Your task to perform on an android device: Is it going to rain tomorrow? Image 0: 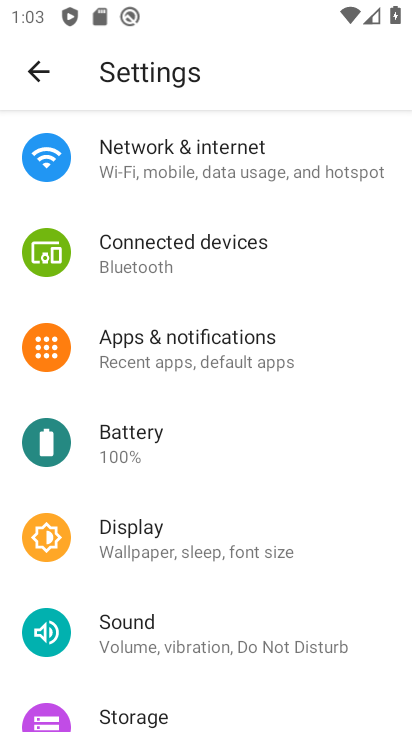
Step 0: press home button
Your task to perform on an android device: Is it going to rain tomorrow? Image 1: 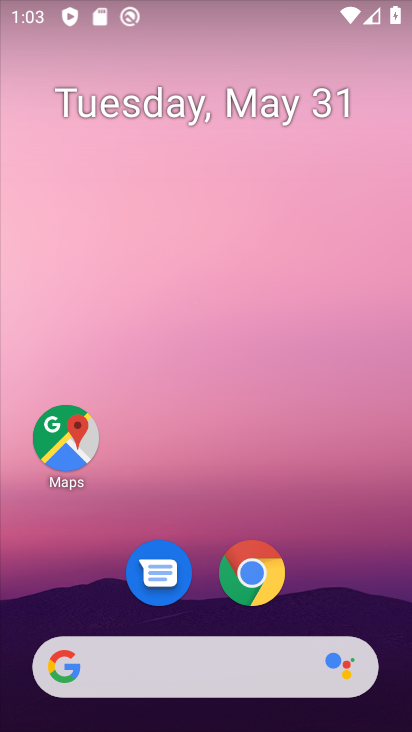
Step 1: click (251, 661)
Your task to perform on an android device: Is it going to rain tomorrow? Image 2: 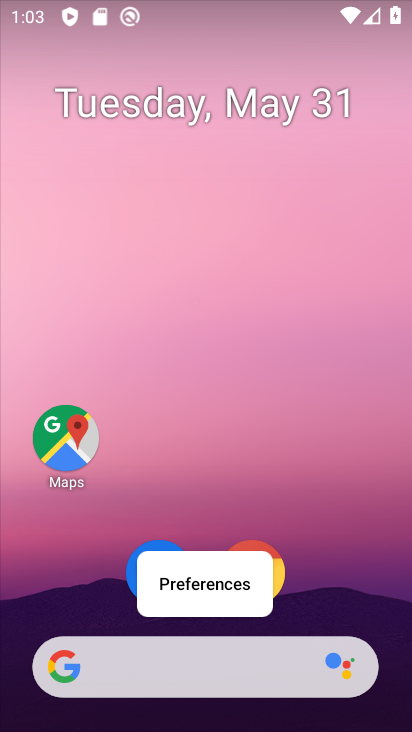
Step 2: click (205, 670)
Your task to perform on an android device: Is it going to rain tomorrow? Image 3: 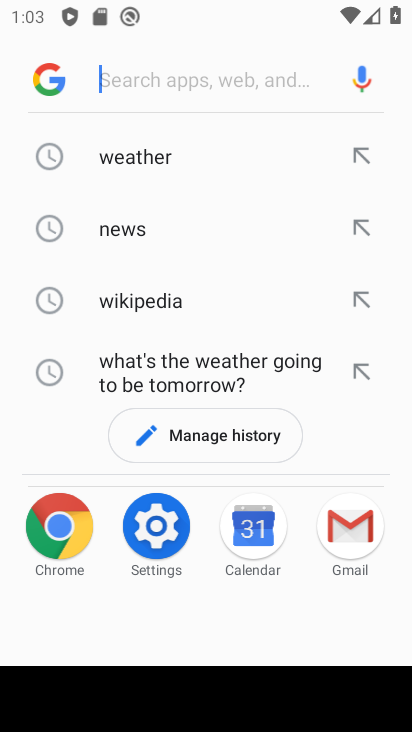
Step 3: click (178, 164)
Your task to perform on an android device: Is it going to rain tomorrow? Image 4: 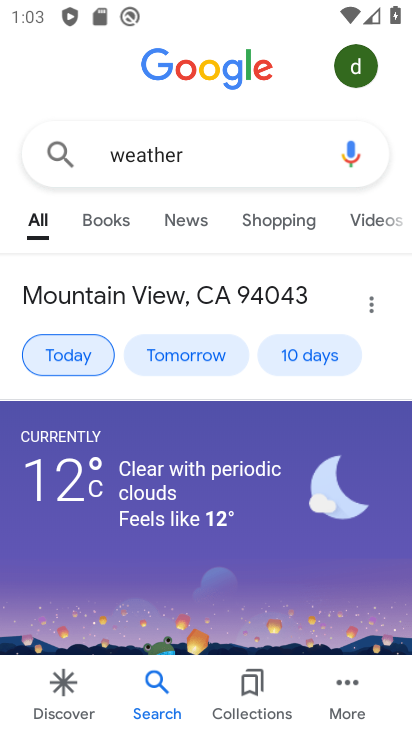
Step 4: click (198, 352)
Your task to perform on an android device: Is it going to rain tomorrow? Image 5: 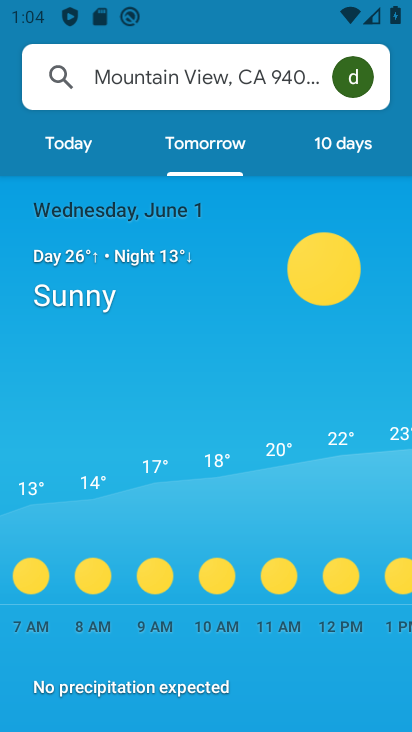
Step 5: task complete